Your task to perform on an android device: delete browsing data in the chrome app Image 0: 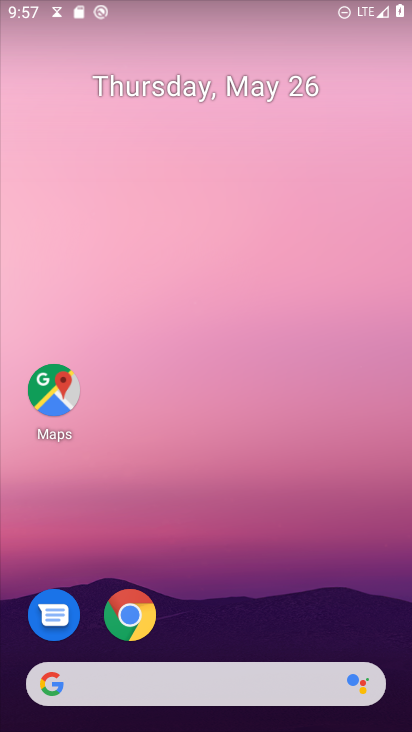
Step 0: click (128, 618)
Your task to perform on an android device: delete browsing data in the chrome app Image 1: 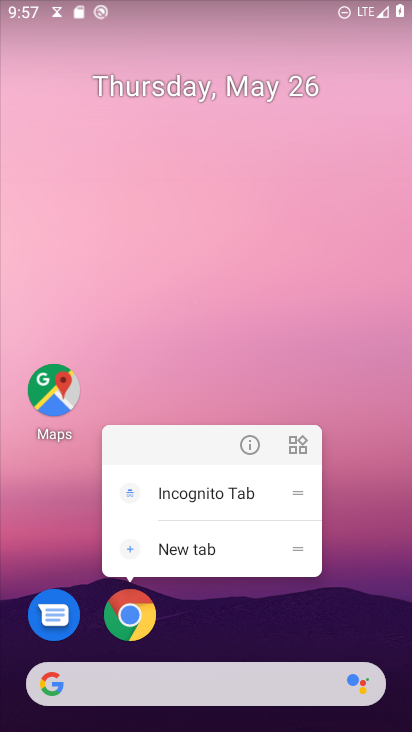
Step 1: click (139, 601)
Your task to perform on an android device: delete browsing data in the chrome app Image 2: 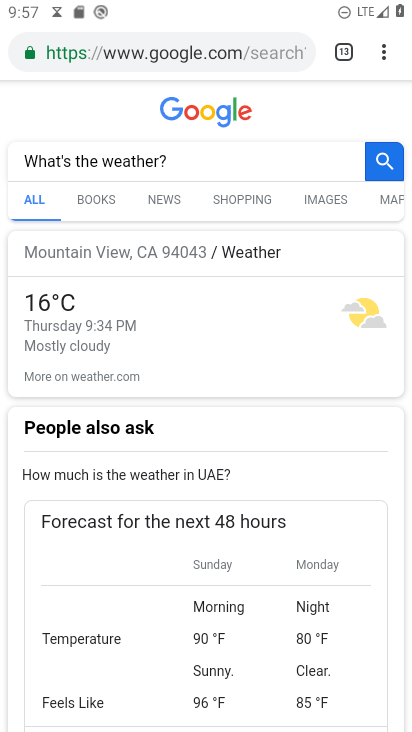
Step 2: click (386, 51)
Your task to perform on an android device: delete browsing data in the chrome app Image 3: 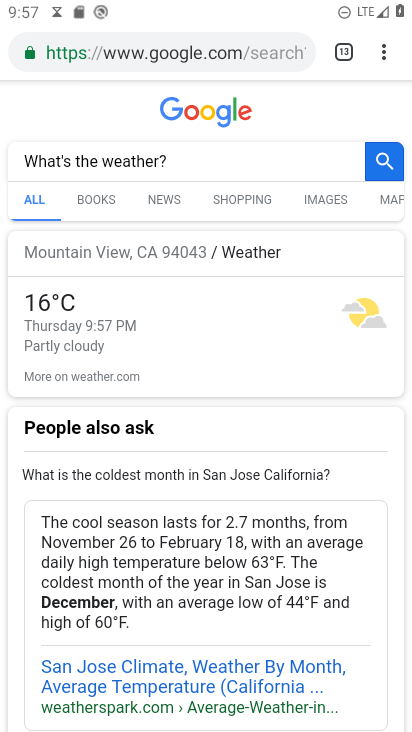
Step 3: click (380, 49)
Your task to perform on an android device: delete browsing data in the chrome app Image 4: 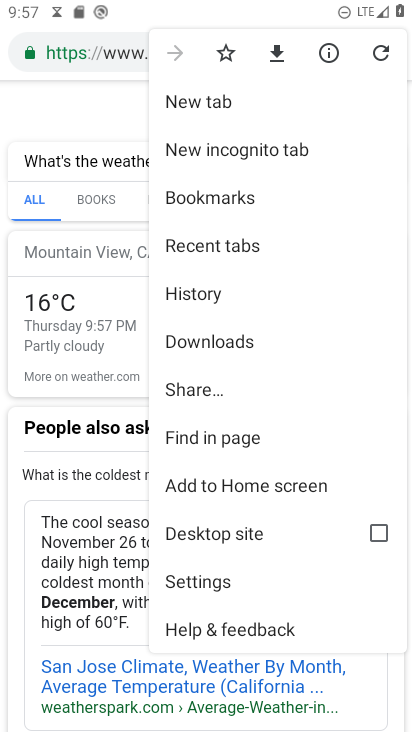
Step 4: click (229, 575)
Your task to perform on an android device: delete browsing data in the chrome app Image 5: 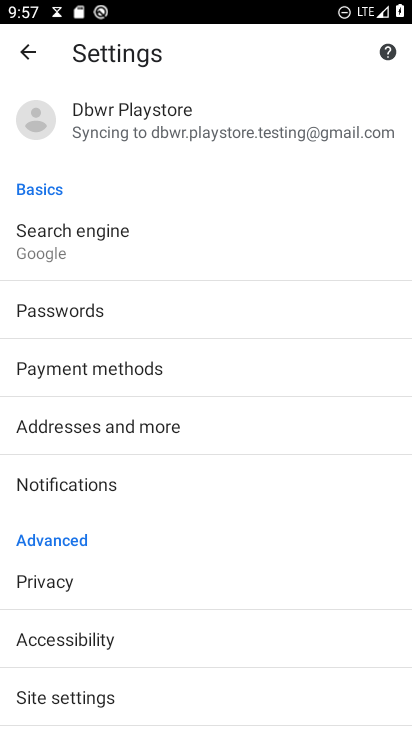
Step 5: click (29, 55)
Your task to perform on an android device: delete browsing data in the chrome app Image 6: 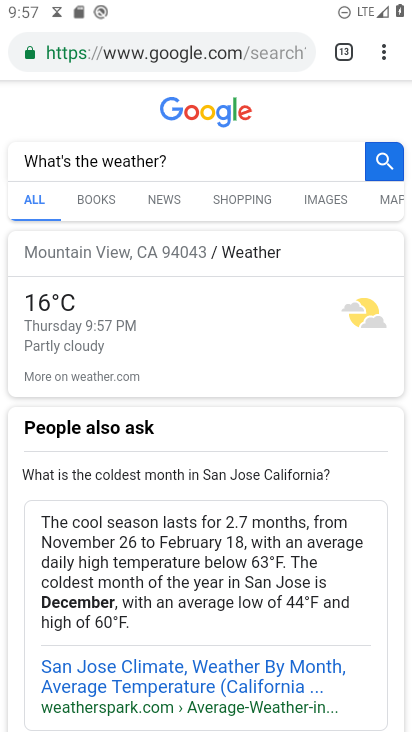
Step 6: click (378, 54)
Your task to perform on an android device: delete browsing data in the chrome app Image 7: 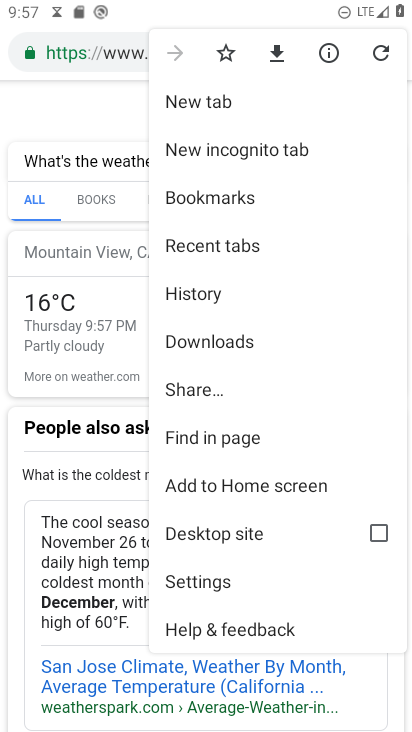
Step 7: click (217, 295)
Your task to perform on an android device: delete browsing data in the chrome app Image 8: 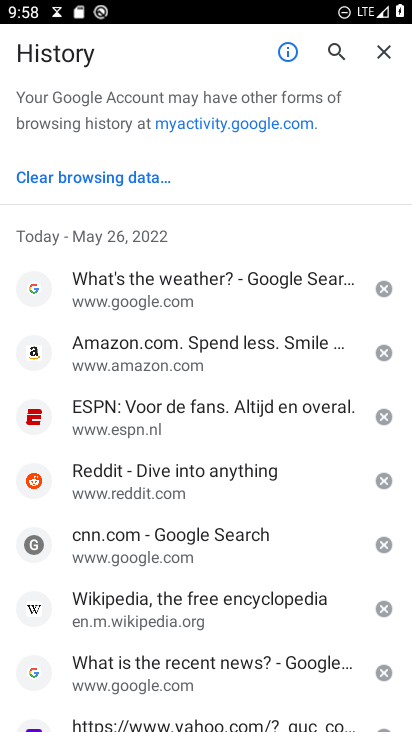
Step 8: click (89, 169)
Your task to perform on an android device: delete browsing data in the chrome app Image 9: 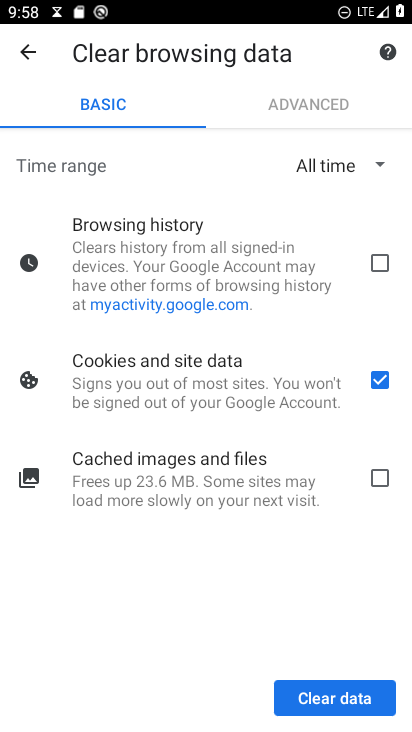
Step 9: click (356, 695)
Your task to perform on an android device: delete browsing data in the chrome app Image 10: 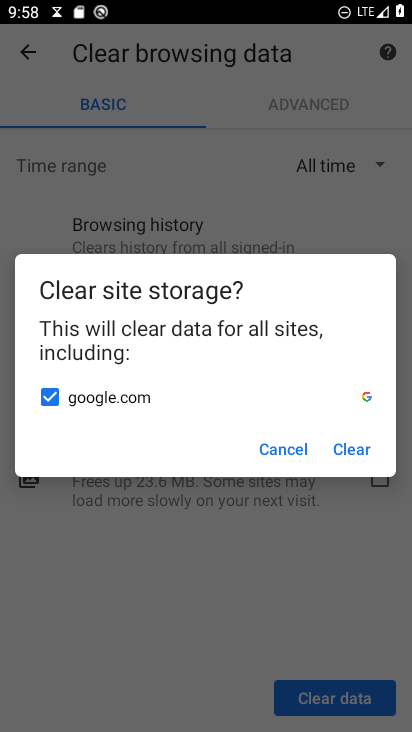
Step 10: click (367, 441)
Your task to perform on an android device: delete browsing data in the chrome app Image 11: 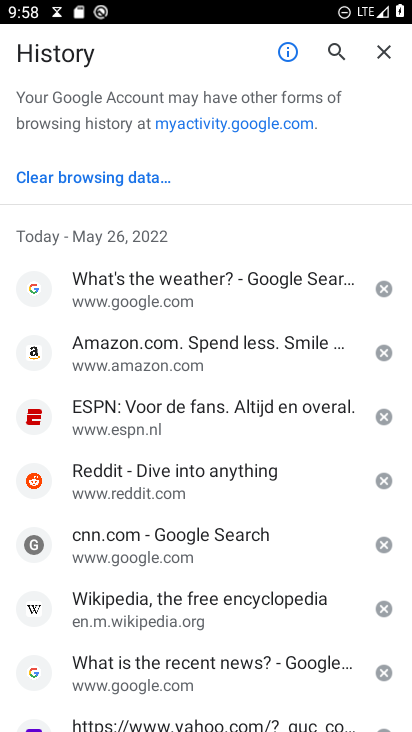
Step 11: task complete